Your task to perform on an android device: Open Google Maps and go to "Timeline" Image 0: 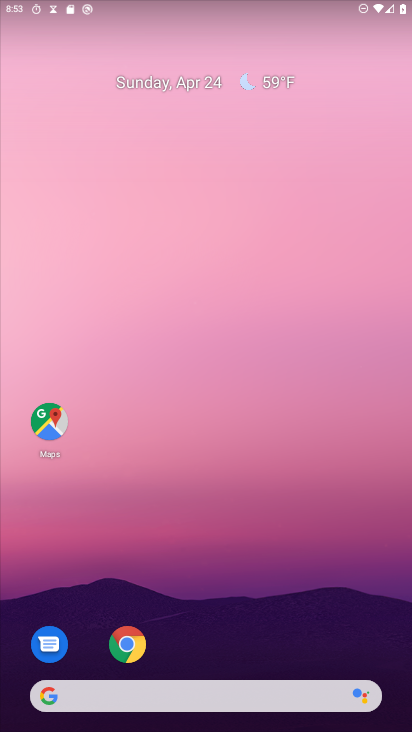
Step 0: click (47, 435)
Your task to perform on an android device: Open Google Maps and go to "Timeline" Image 1: 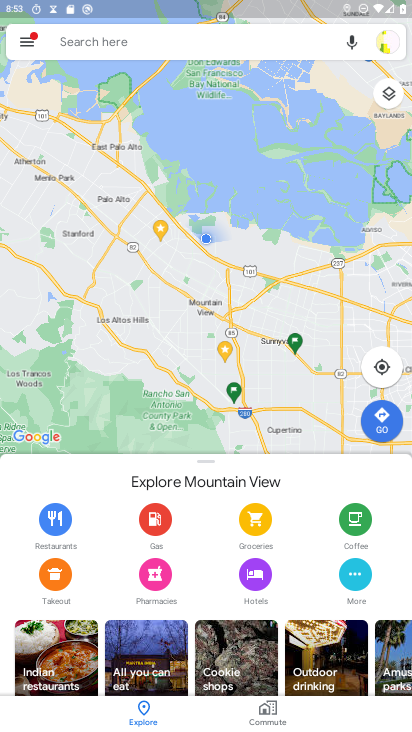
Step 1: click (31, 47)
Your task to perform on an android device: Open Google Maps and go to "Timeline" Image 2: 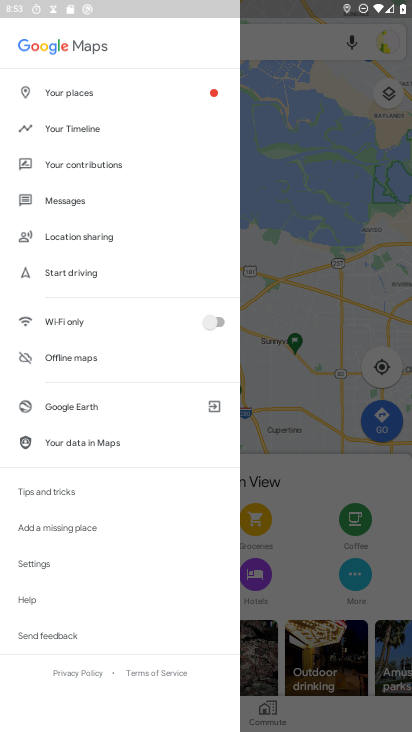
Step 2: click (80, 133)
Your task to perform on an android device: Open Google Maps and go to "Timeline" Image 3: 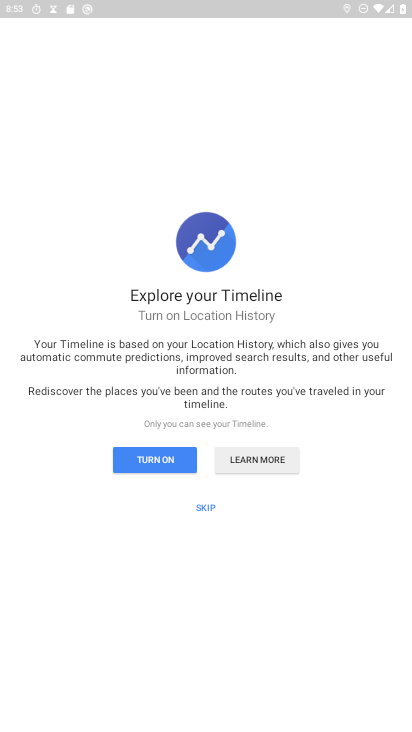
Step 3: click (167, 468)
Your task to perform on an android device: Open Google Maps and go to "Timeline" Image 4: 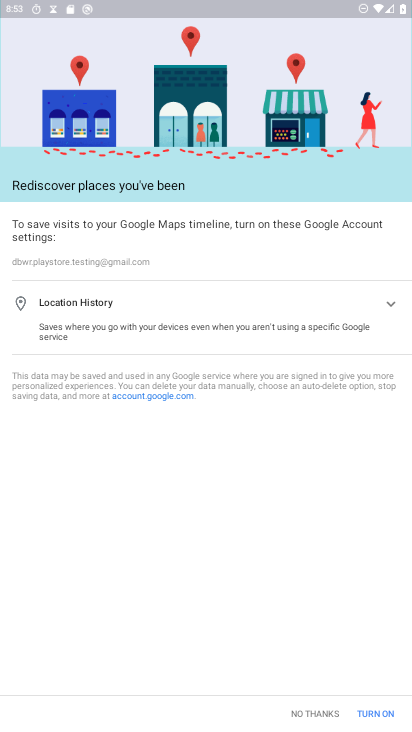
Step 4: click (403, 724)
Your task to perform on an android device: Open Google Maps and go to "Timeline" Image 5: 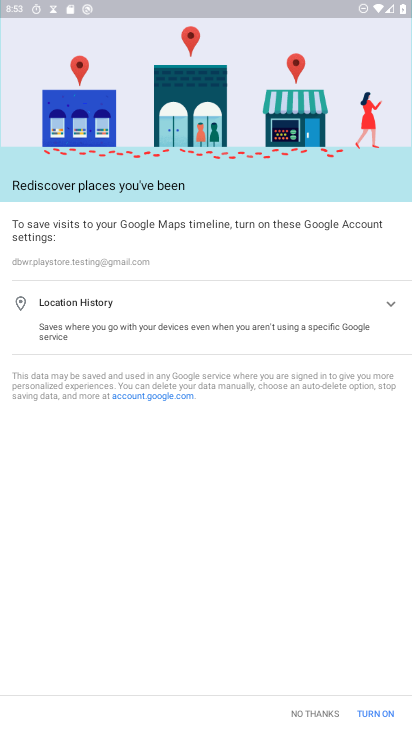
Step 5: click (382, 718)
Your task to perform on an android device: Open Google Maps and go to "Timeline" Image 6: 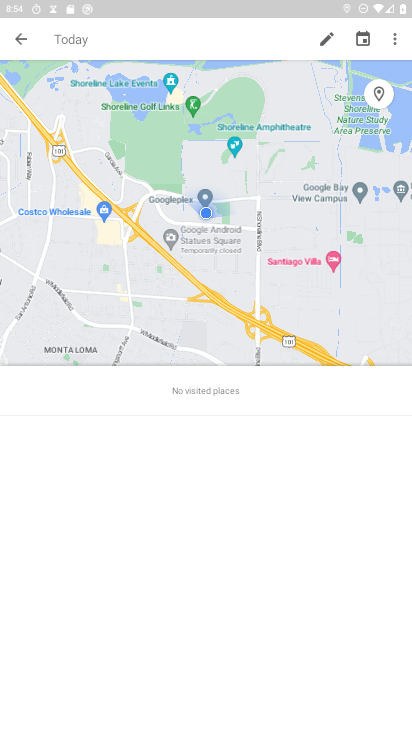
Step 6: task complete